Your task to perform on an android device: Clear the shopping cart on walmart. Search for macbook pro 15 inch on walmart, select the first entry, and add it to the cart. Image 0: 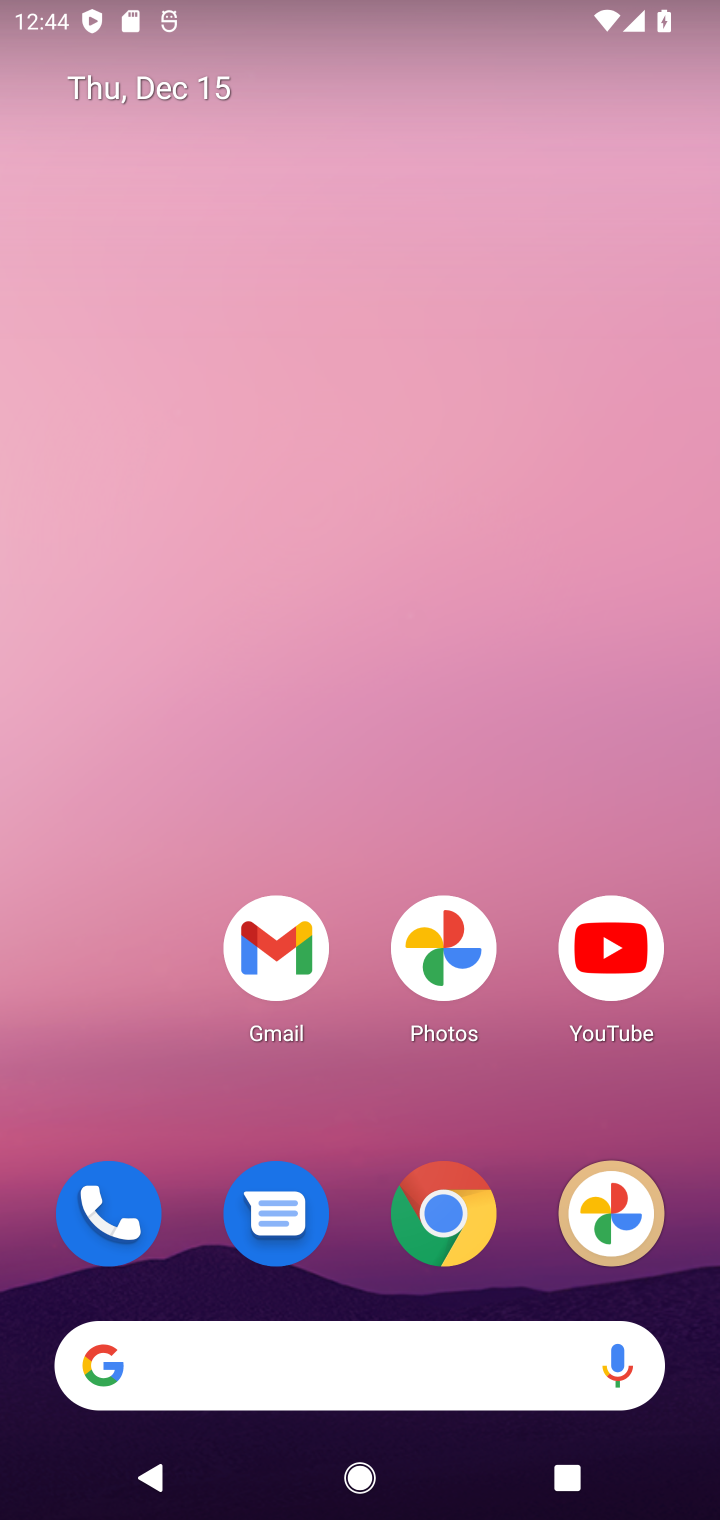
Step 0: click (275, 1346)
Your task to perform on an android device: Clear the shopping cart on walmart. Search for macbook pro 15 inch on walmart, select the first entry, and add it to the cart. Image 1: 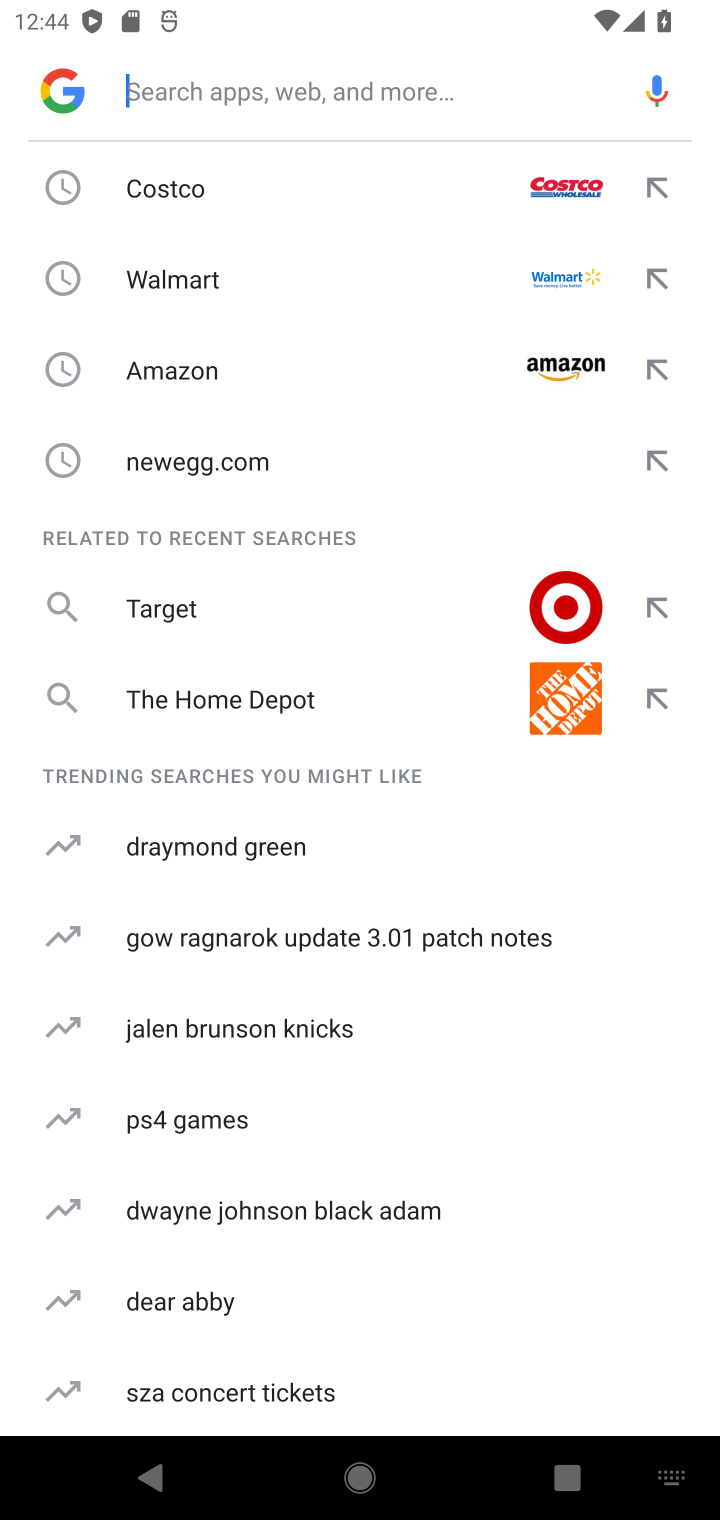
Step 1: click (193, 300)
Your task to perform on an android device: Clear the shopping cart on walmart. Search for macbook pro 15 inch on walmart, select the first entry, and add it to the cart. Image 2: 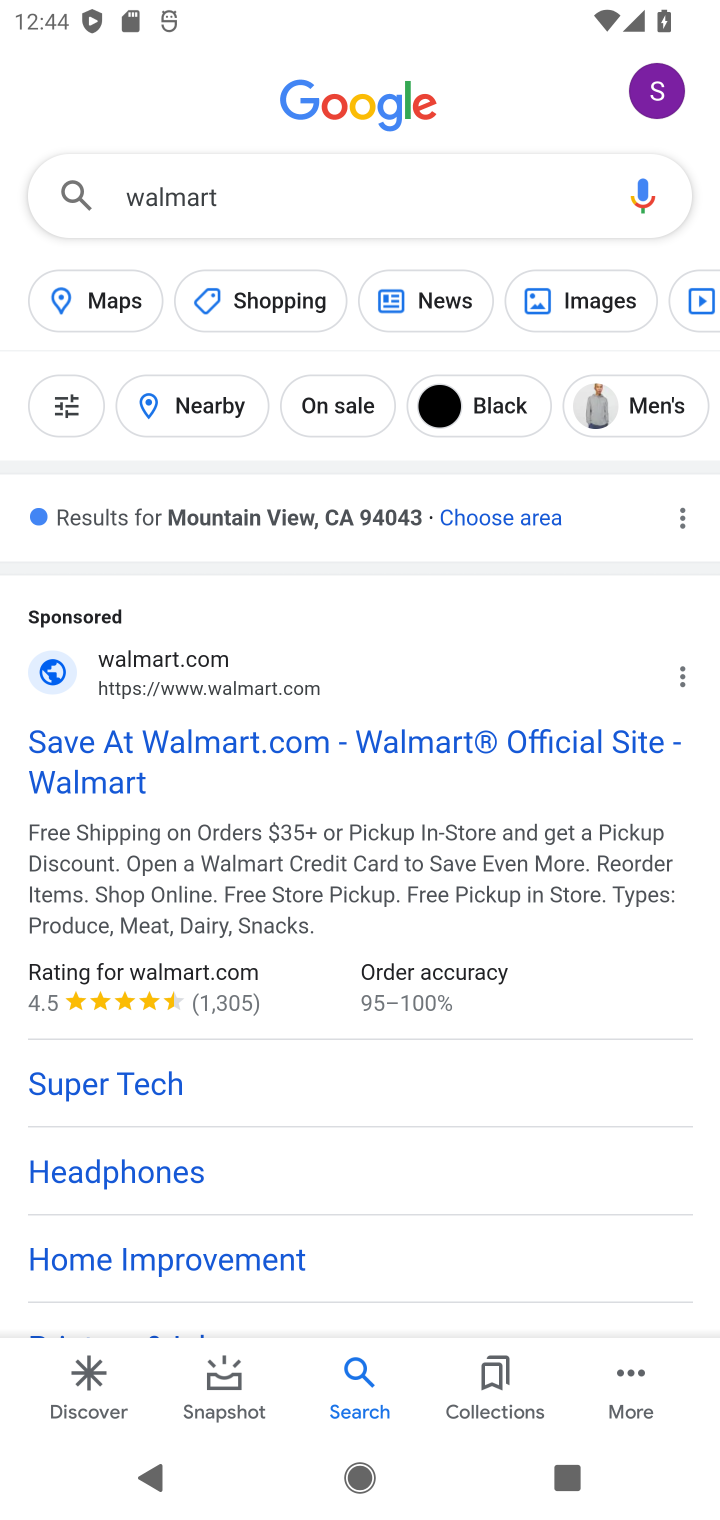
Step 2: click (105, 769)
Your task to perform on an android device: Clear the shopping cart on walmart. Search for macbook pro 15 inch on walmart, select the first entry, and add it to the cart. Image 3: 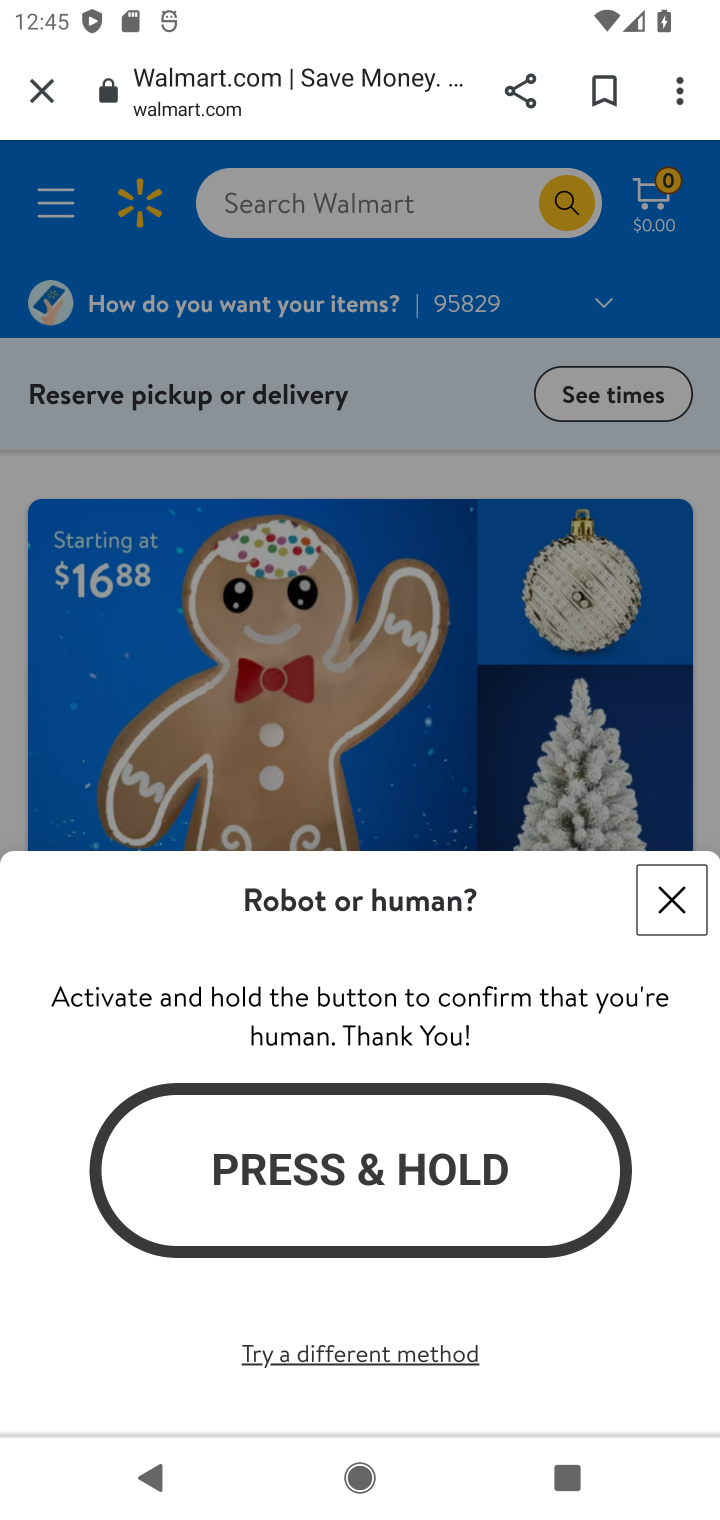
Step 3: click (665, 921)
Your task to perform on an android device: Clear the shopping cart on walmart. Search for macbook pro 15 inch on walmart, select the first entry, and add it to the cart. Image 4: 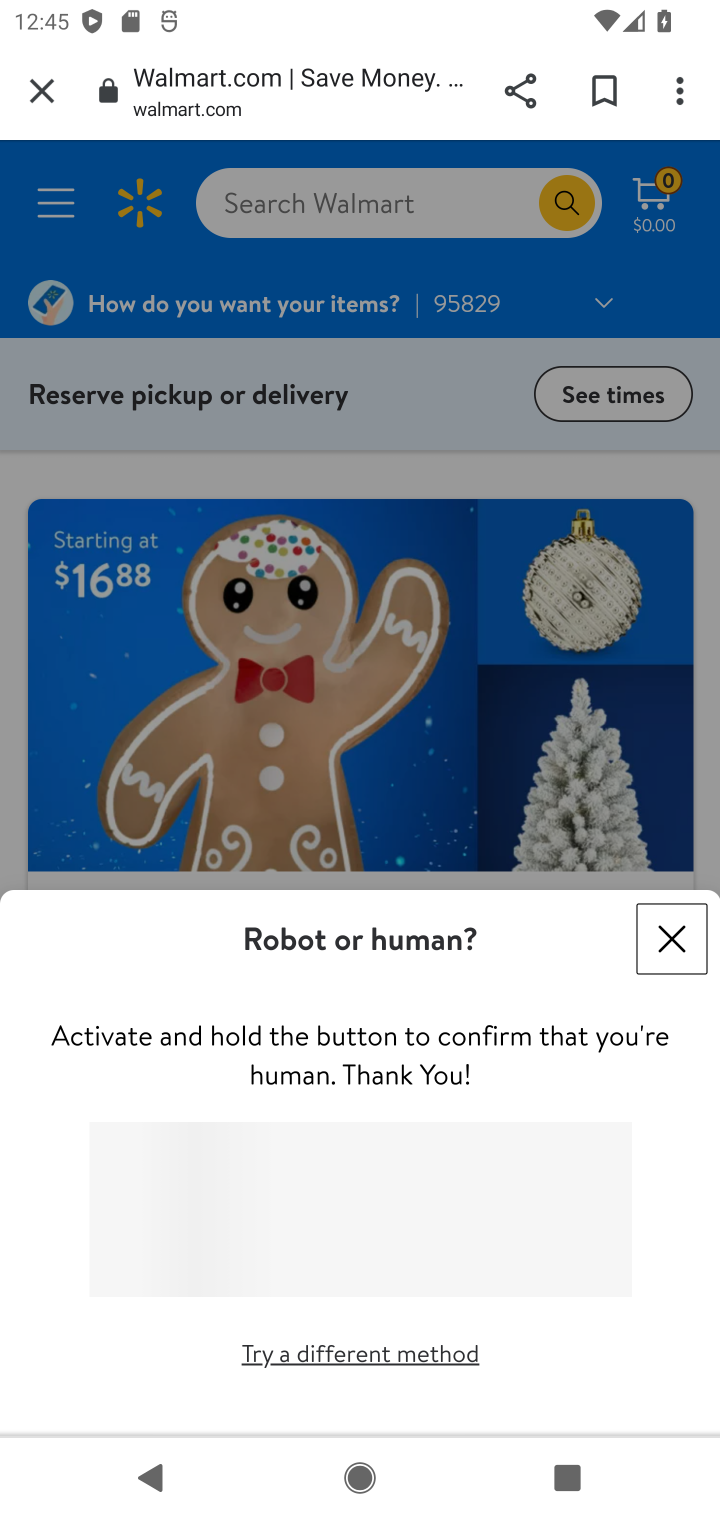
Step 4: click (668, 962)
Your task to perform on an android device: Clear the shopping cart on walmart. Search for macbook pro 15 inch on walmart, select the first entry, and add it to the cart. Image 5: 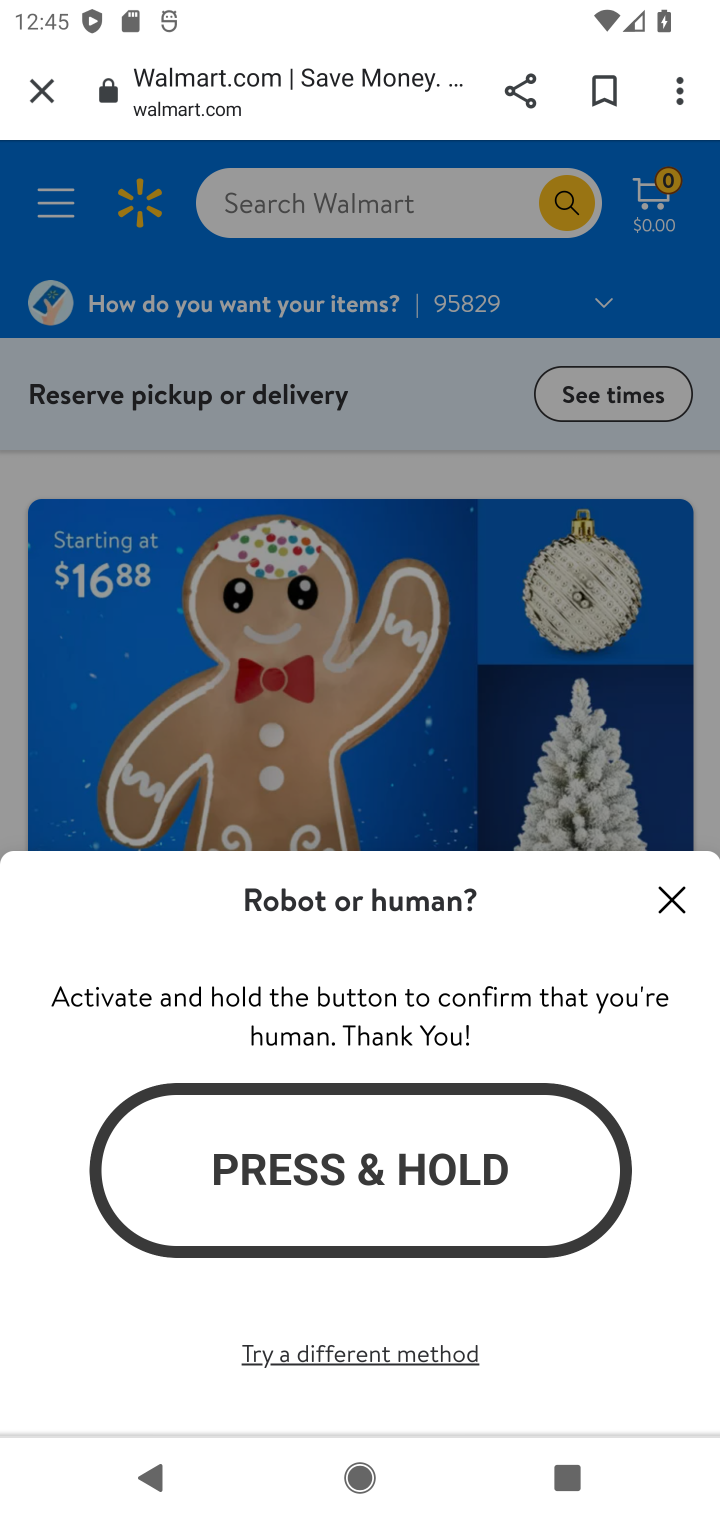
Step 5: click (668, 934)
Your task to perform on an android device: Clear the shopping cart on walmart. Search for macbook pro 15 inch on walmart, select the first entry, and add it to the cart. Image 6: 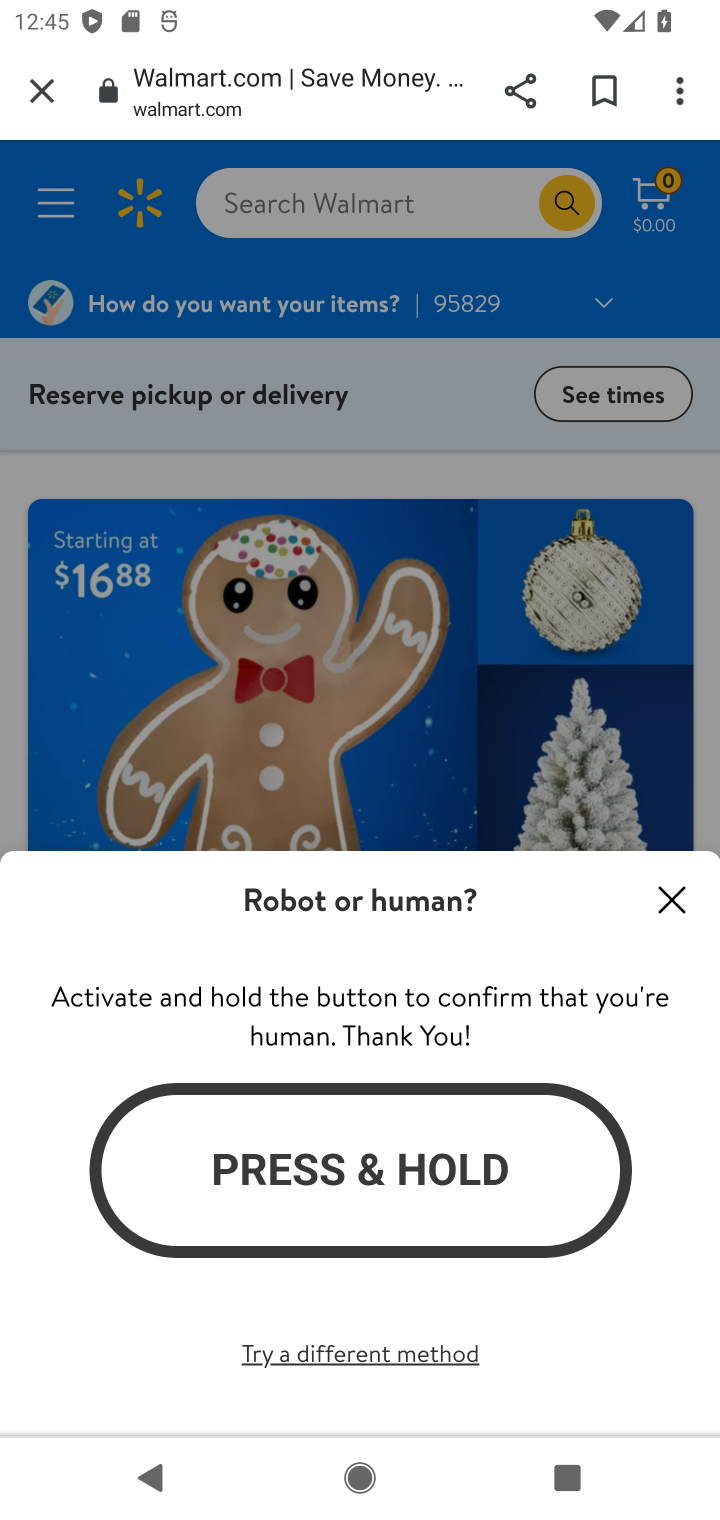
Step 6: click (658, 891)
Your task to perform on an android device: Clear the shopping cart on walmart. Search for macbook pro 15 inch on walmart, select the first entry, and add it to the cart. Image 7: 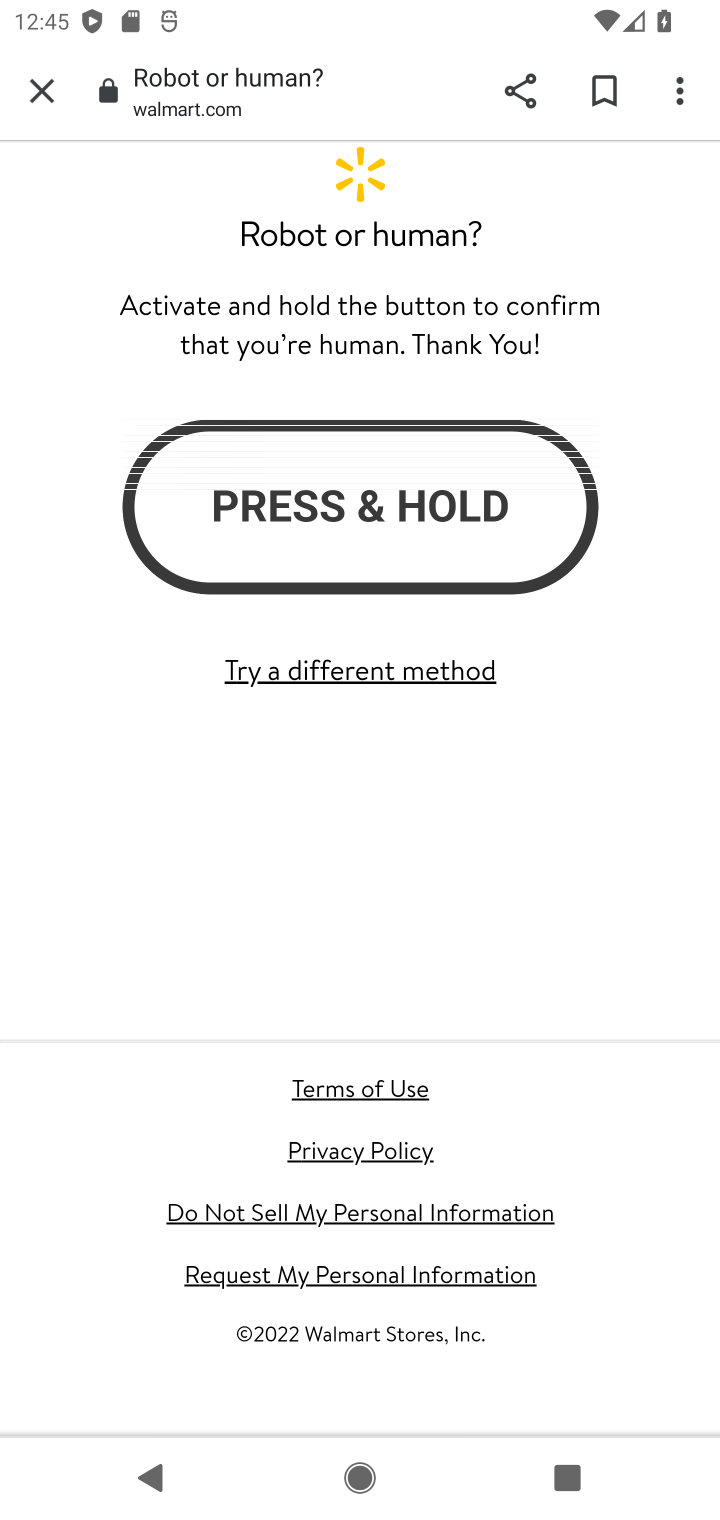
Step 7: task complete